Your task to perform on an android device: Open ESPN.com Image 0: 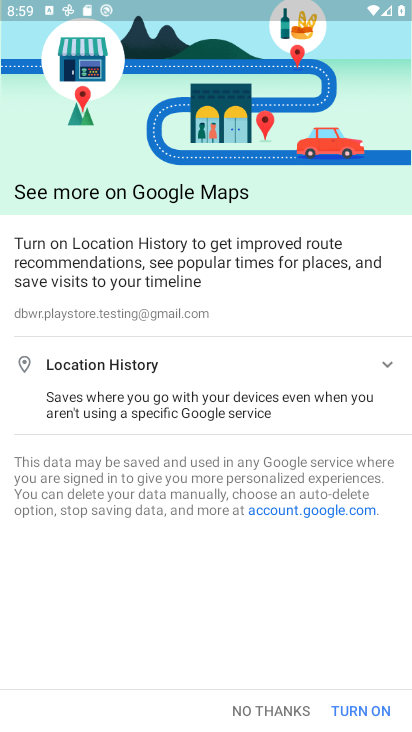
Step 0: click (261, 710)
Your task to perform on an android device: Open ESPN.com Image 1: 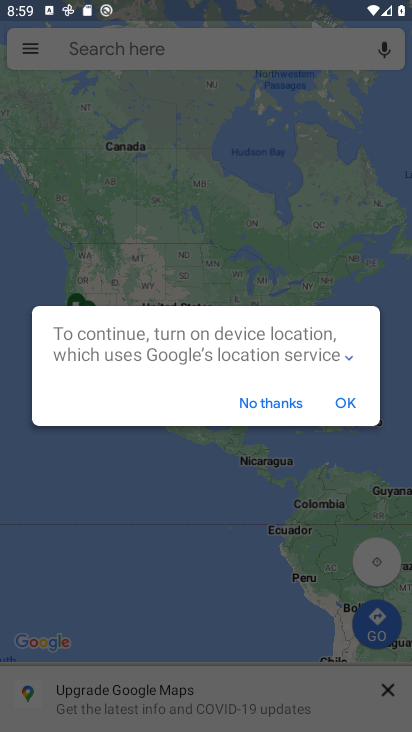
Step 1: press home button
Your task to perform on an android device: Open ESPN.com Image 2: 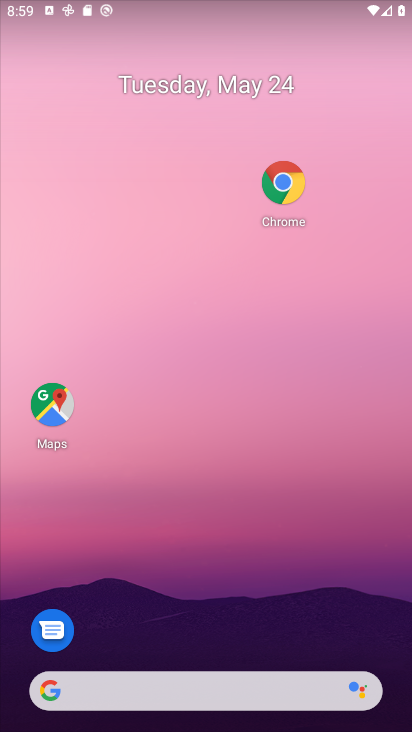
Step 2: click (288, 201)
Your task to perform on an android device: Open ESPN.com Image 3: 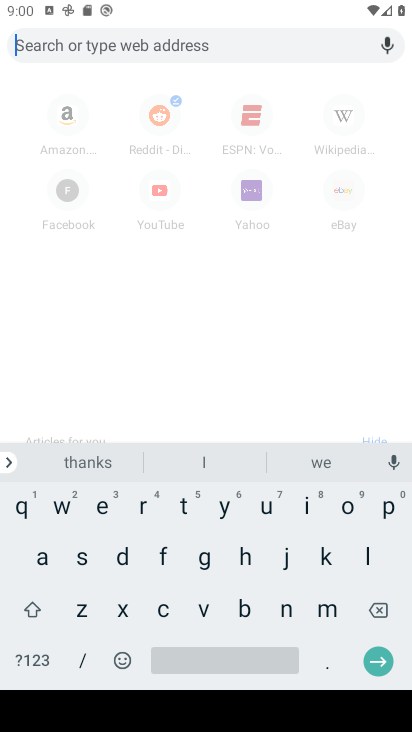
Step 3: click (99, 502)
Your task to perform on an android device: Open ESPN.com Image 4: 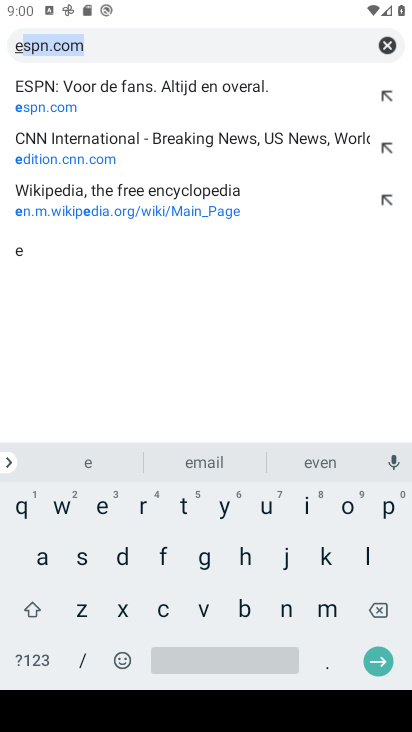
Step 4: click (80, 558)
Your task to perform on an android device: Open ESPN.com Image 5: 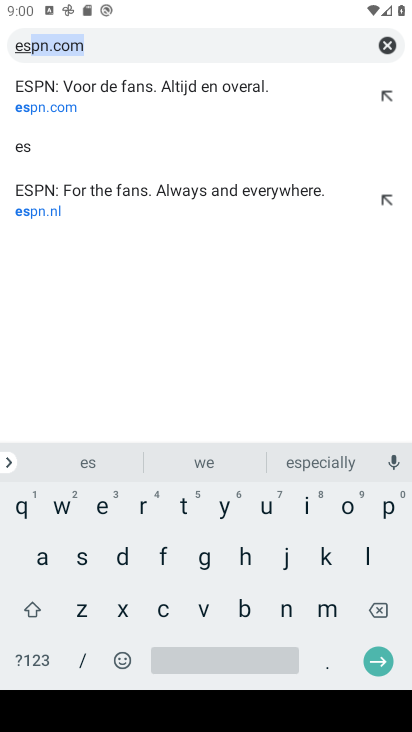
Step 5: click (64, 196)
Your task to perform on an android device: Open ESPN.com Image 6: 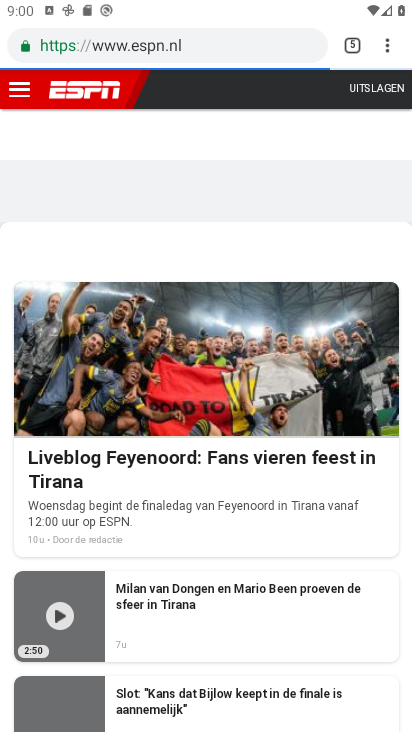
Step 6: task complete